Your task to perform on an android device: allow notifications from all sites in the chrome app Image 0: 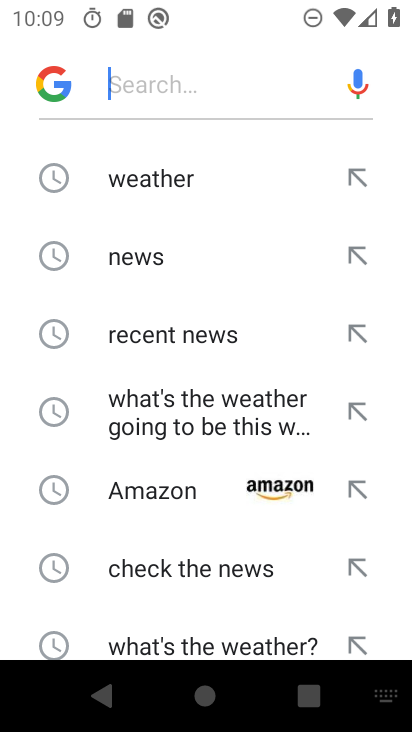
Step 0: press home button
Your task to perform on an android device: allow notifications from all sites in the chrome app Image 1: 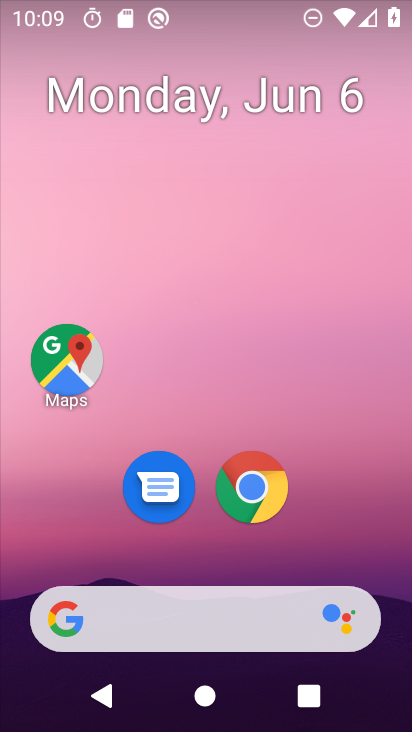
Step 1: drag from (396, 632) to (300, 152)
Your task to perform on an android device: allow notifications from all sites in the chrome app Image 2: 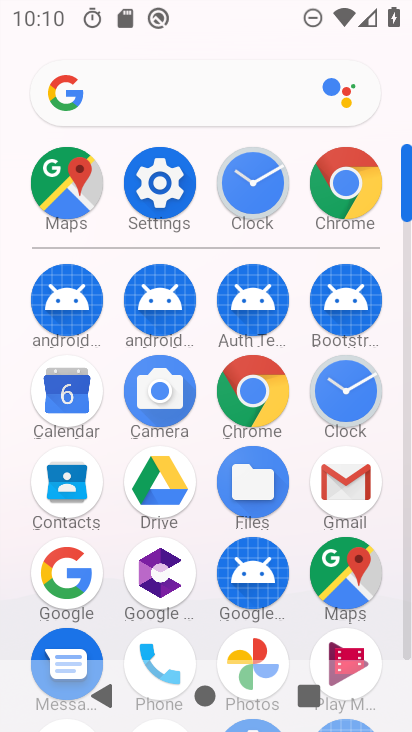
Step 2: click (242, 405)
Your task to perform on an android device: allow notifications from all sites in the chrome app Image 3: 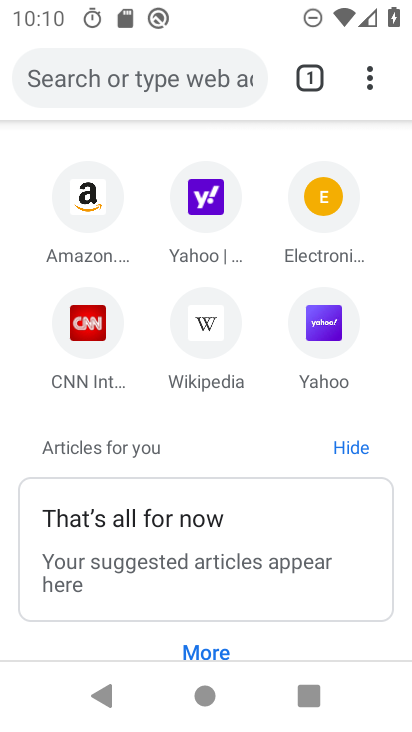
Step 3: click (371, 71)
Your task to perform on an android device: allow notifications from all sites in the chrome app Image 4: 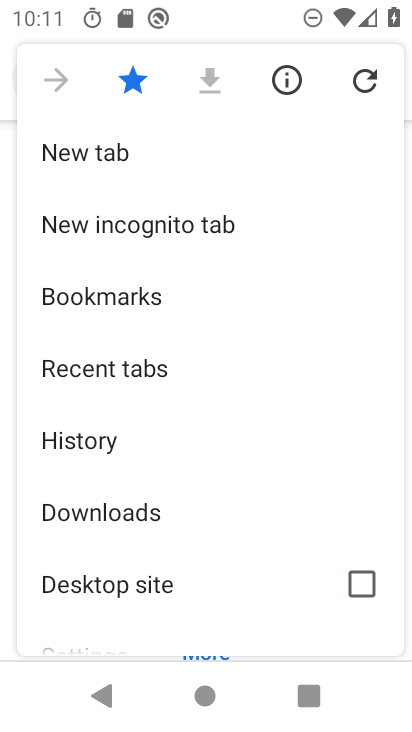
Step 4: drag from (260, 583) to (272, 183)
Your task to perform on an android device: allow notifications from all sites in the chrome app Image 5: 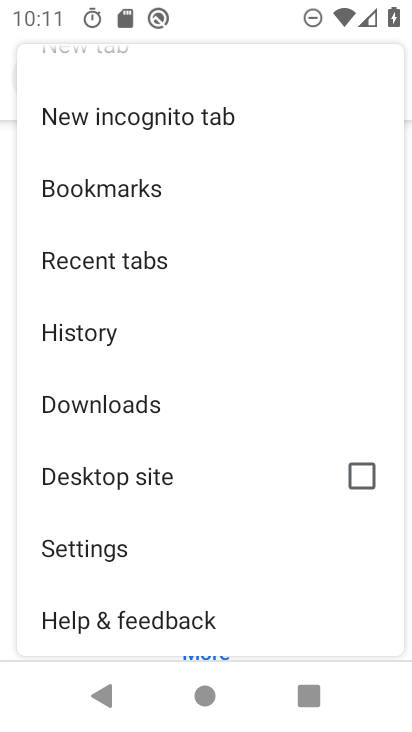
Step 5: click (194, 540)
Your task to perform on an android device: allow notifications from all sites in the chrome app Image 6: 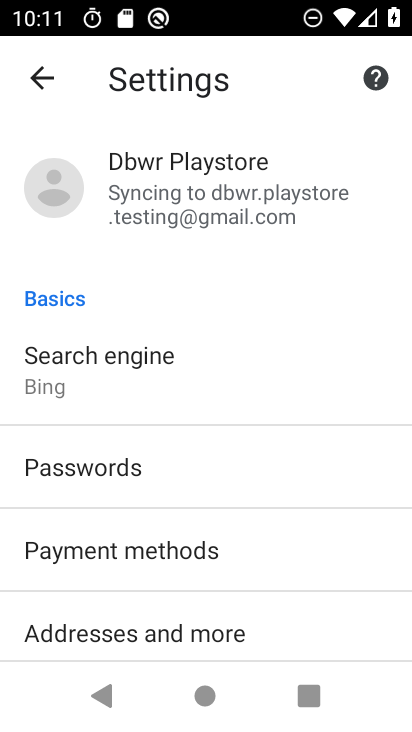
Step 6: drag from (162, 607) to (188, 162)
Your task to perform on an android device: allow notifications from all sites in the chrome app Image 7: 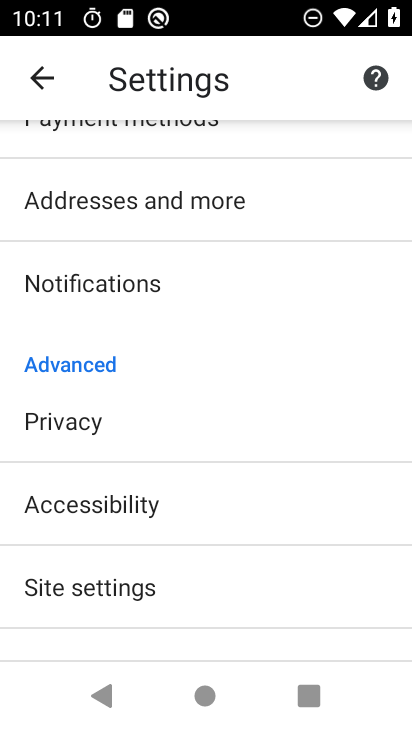
Step 7: click (142, 293)
Your task to perform on an android device: allow notifications from all sites in the chrome app Image 8: 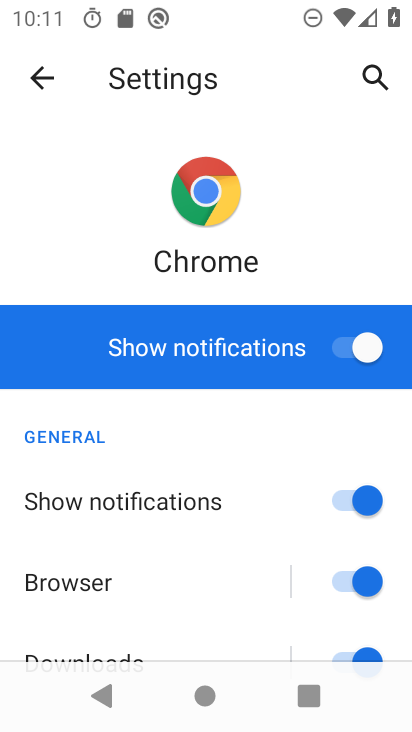
Step 8: task complete